Your task to perform on an android device: Do I have any events tomorrow? Image 0: 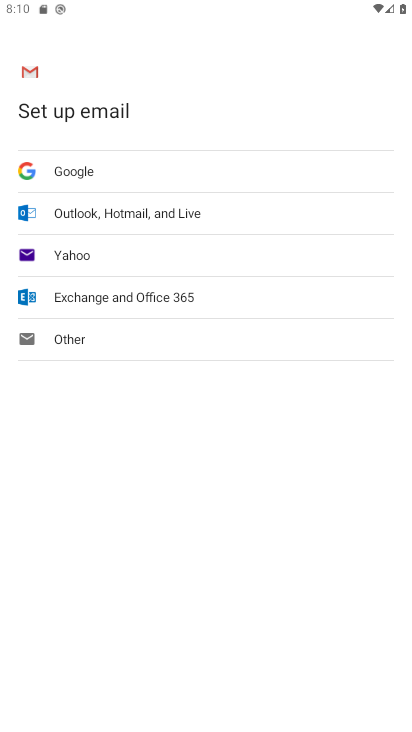
Step 0: press home button
Your task to perform on an android device: Do I have any events tomorrow? Image 1: 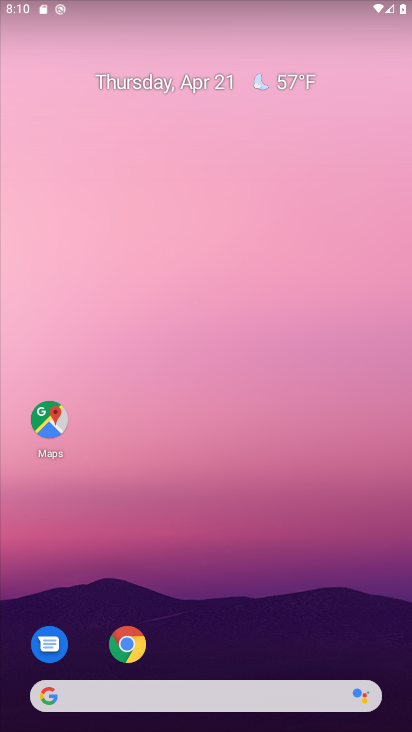
Step 1: drag from (215, 630) to (181, 55)
Your task to perform on an android device: Do I have any events tomorrow? Image 2: 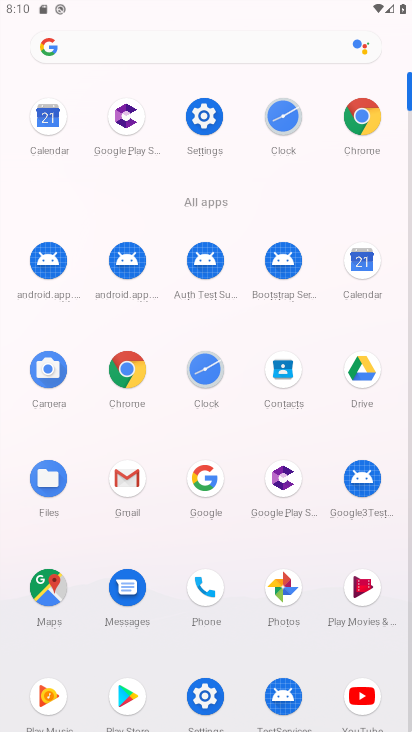
Step 2: click (371, 262)
Your task to perform on an android device: Do I have any events tomorrow? Image 3: 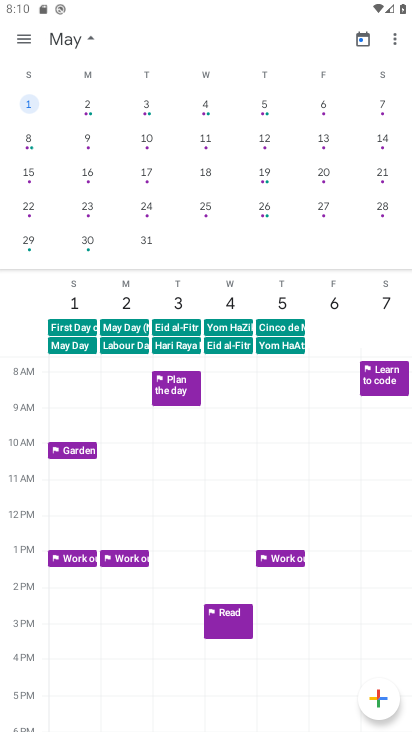
Step 3: click (24, 42)
Your task to perform on an android device: Do I have any events tomorrow? Image 4: 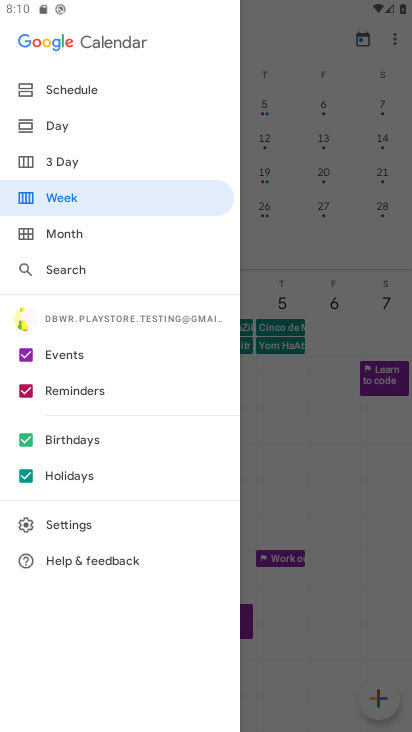
Step 4: click (65, 130)
Your task to perform on an android device: Do I have any events tomorrow? Image 5: 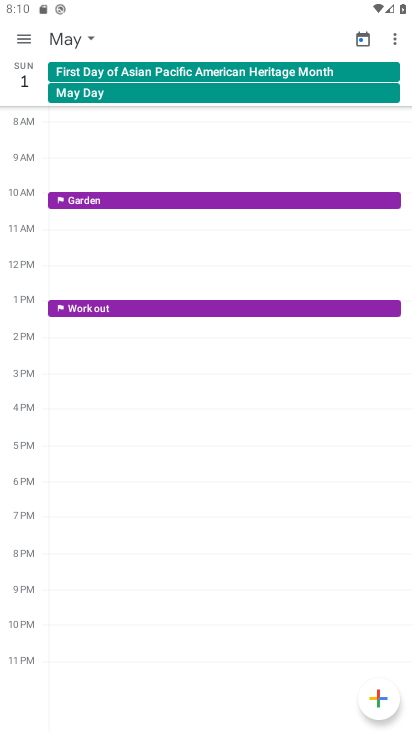
Step 5: click (90, 37)
Your task to perform on an android device: Do I have any events tomorrow? Image 6: 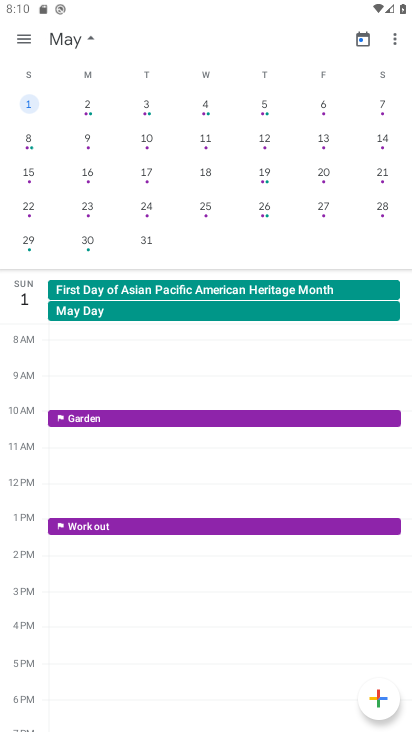
Step 6: drag from (62, 166) to (411, 159)
Your task to perform on an android device: Do I have any events tomorrow? Image 7: 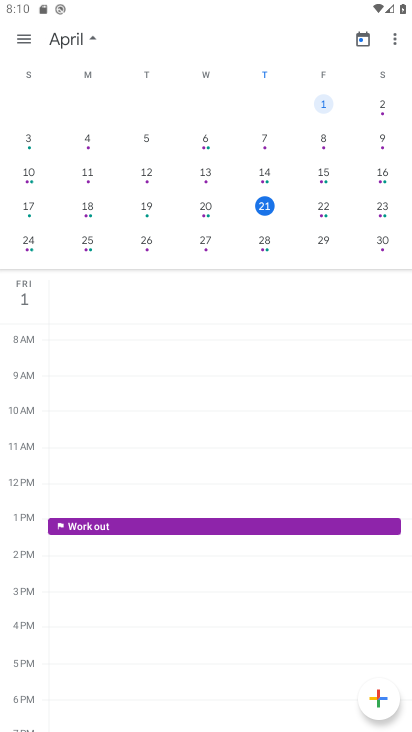
Step 7: click (328, 206)
Your task to perform on an android device: Do I have any events tomorrow? Image 8: 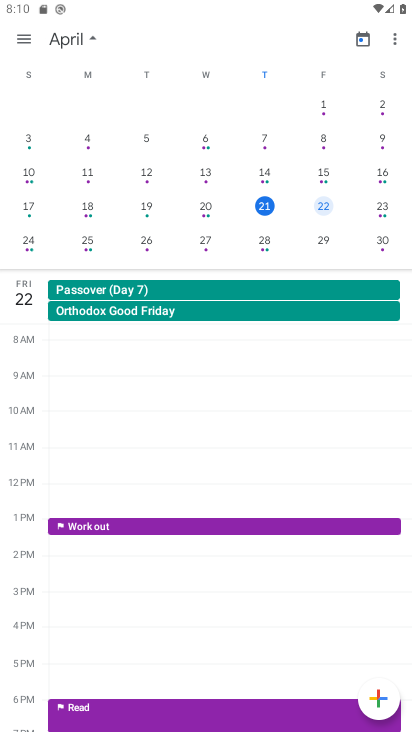
Step 8: task complete